Your task to perform on an android device: turn off data saver in the chrome app Image 0: 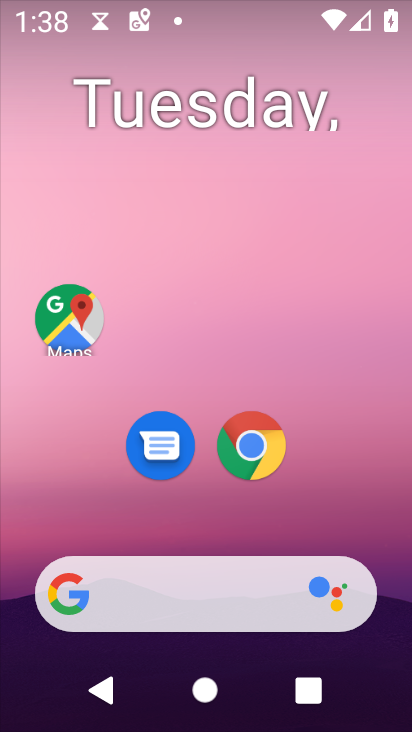
Step 0: drag from (357, 609) to (397, 18)
Your task to perform on an android device: turn off data saver in the chrome app Image 1: 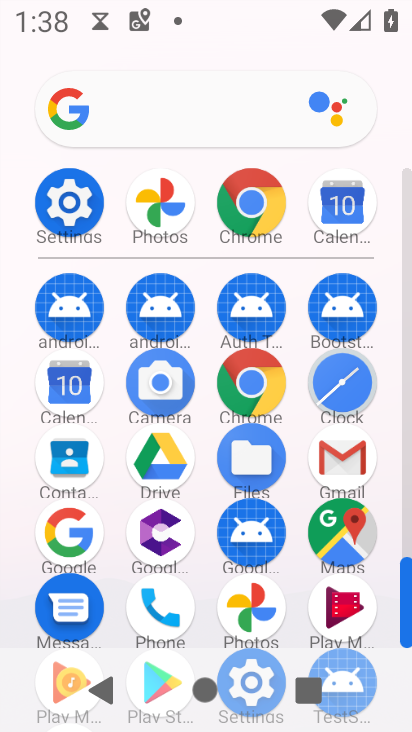
Step 1: click (246, 378)
Your task to perform on an android device: turn off data saver in the chrome app Image 2: 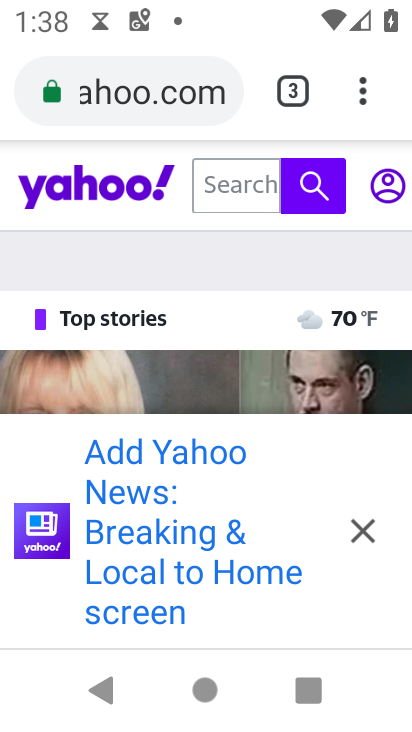
Step 2: drag from (368, 93) to (246, 578)
Your task to perform on an android device: turn off data saver in the chrome app Image 3: 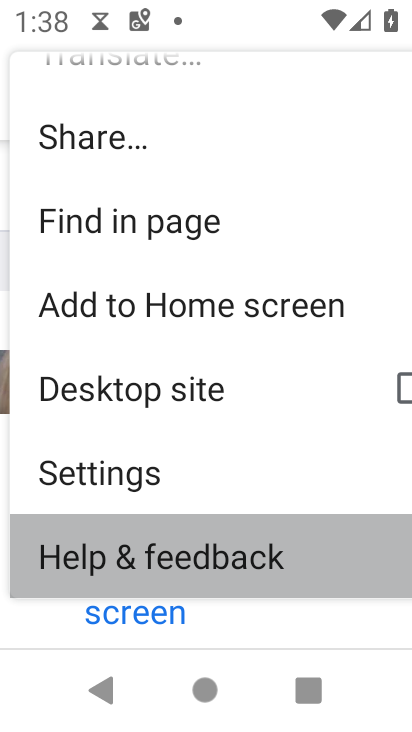
Step 3: click (256, 525)
Your task to perform on an android device: turn off data saver in the chrome app Image 4: 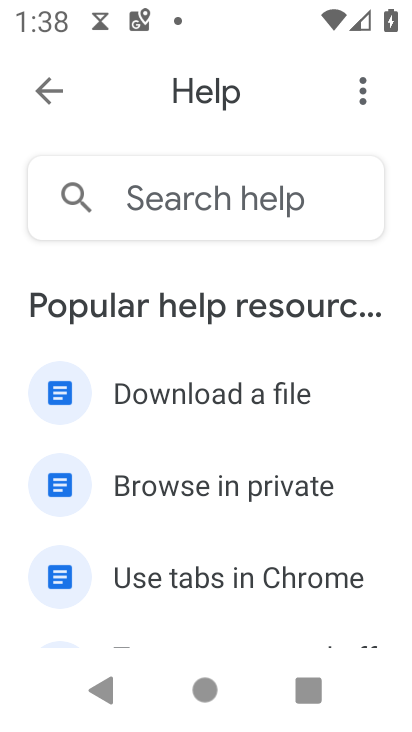
Step 4: press back button
Your task to perform on an android device: turn off data saver in the chrome app Image 5: 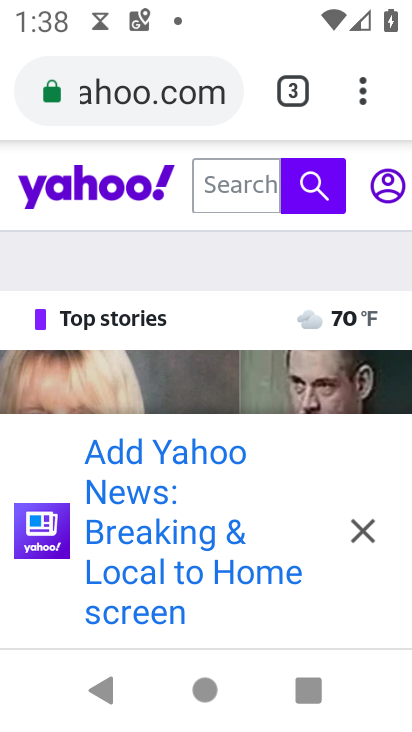
Step 5: drag from (371, 90) to (299, 467)
Your task to perform on an android device: turn off data saver in the chrome app Image 6: 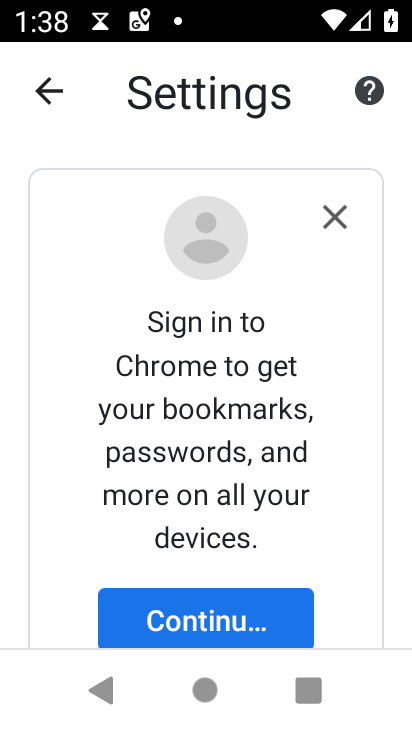
Step 6: drag from (345, 576) to (402, 6)
Your task to perform on an android device: turn off data saver in the chrome app Image 7: 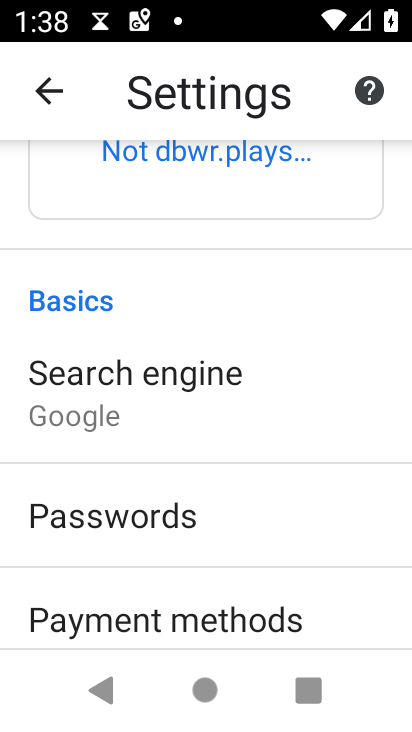
Step 7: drag from (251, 578) to (265, 48)
Your task to perform on an android device: turn off data saver in the chrome app Image 8: 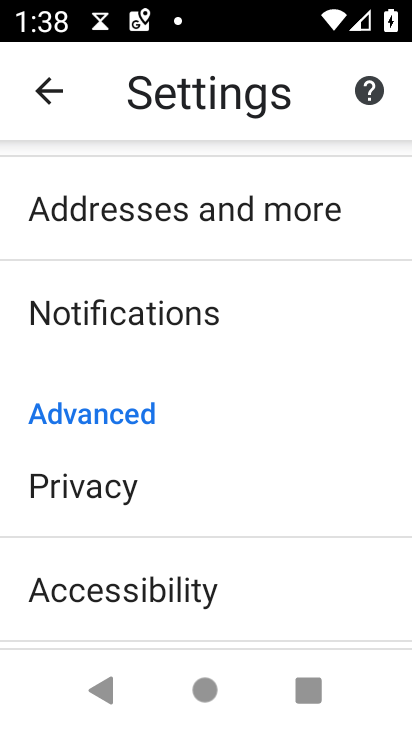
Step 8: drag from (289, 636) to (302, 325)
Your task to perform on an android device: turn off data saver in the chrome app Image 9: 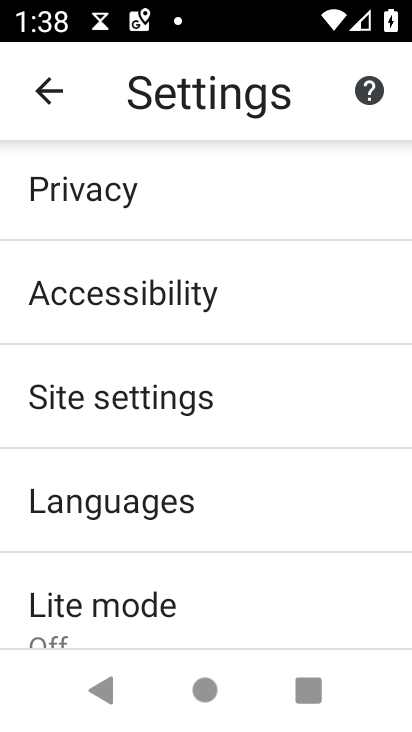
Step 9: click (165, 601)
Your task to perform on an android device: turn off data saver in the chrome app Image 10: 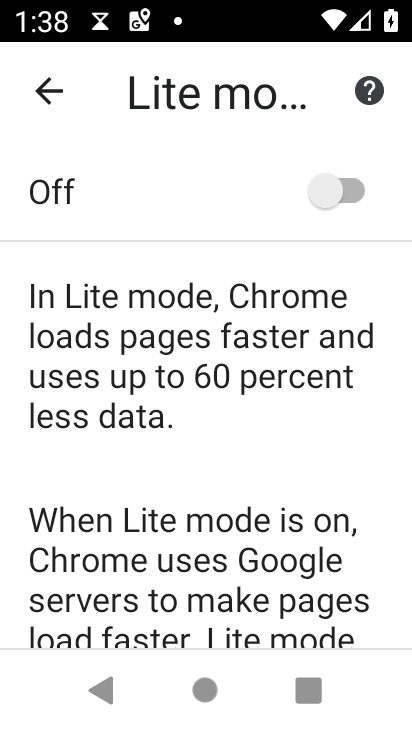
Step 10: task complete